Your task to perform on an android device: open app "Yahoo Mail" (install if not already installed) and enter user name: "lawsuit@inbox.com" and password: "pooch" Image 0: 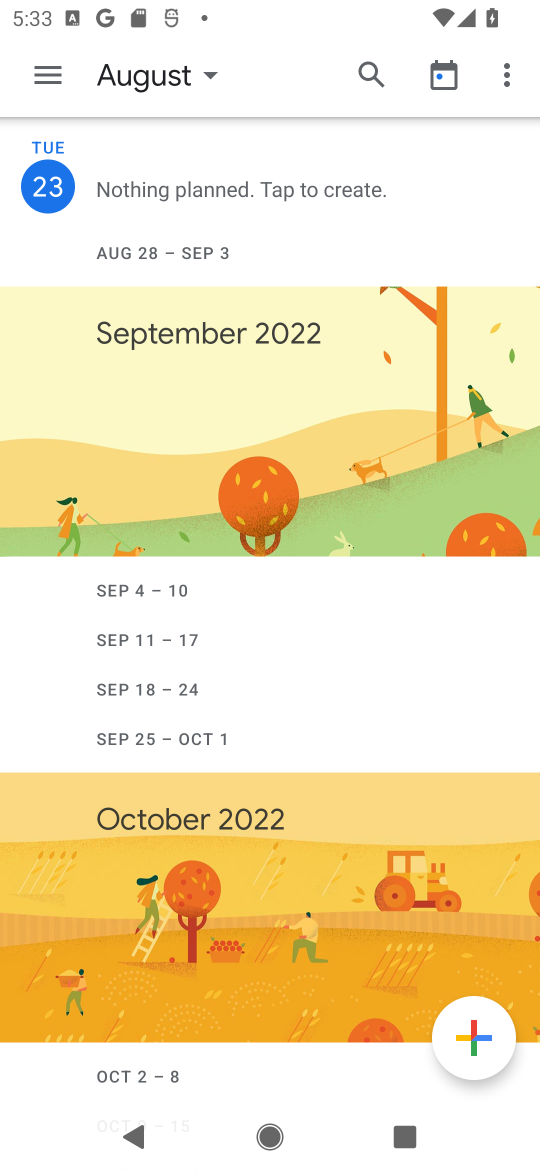
Step 0: press home button
Your task to perform on an android device: open app "Yahoo Mail" (install if not already installed) and enter user name: "lawsuit@inbox.com" and password: "pooch" Image 1: 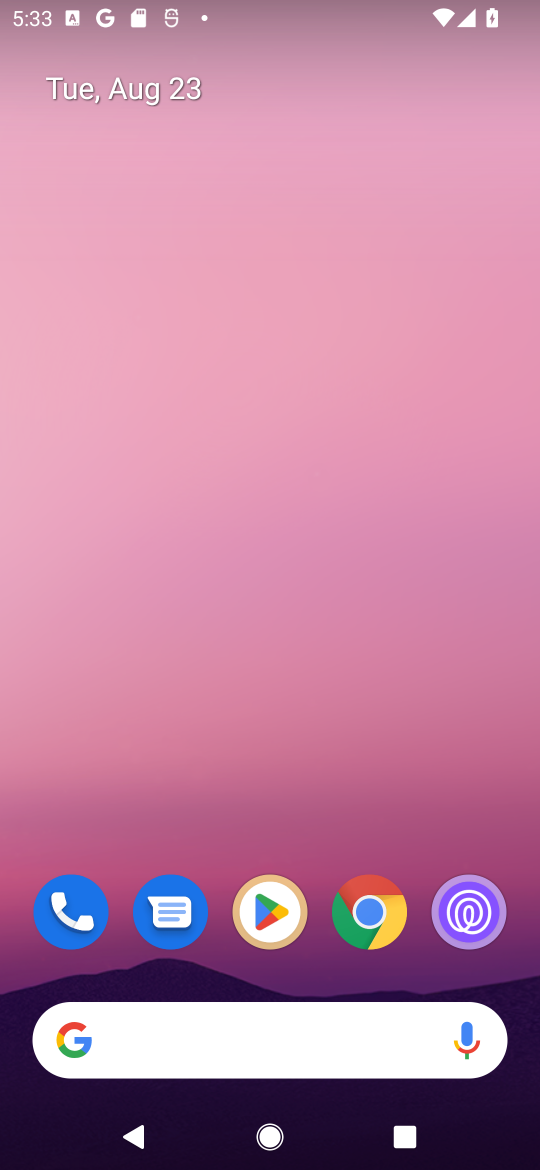
Step 1: click (283, 911)
Your task to perform on an android device: open app "Yahoo Mail" (install if not already installed) and enter user name: "lawsuit@inbox.com" and password: "pooch" Image 2: 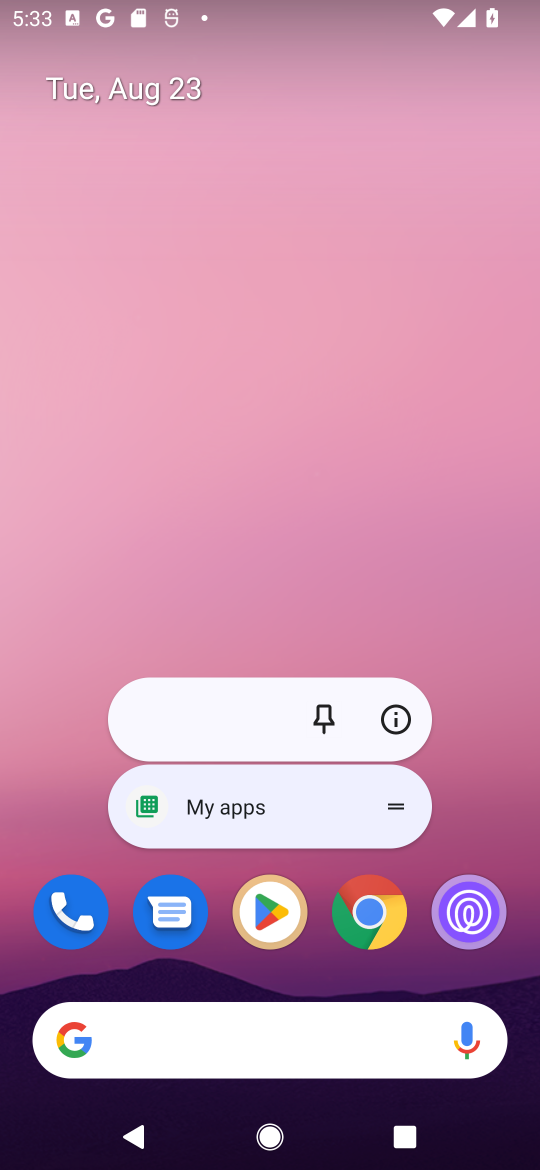
Step 2: click (283, 911)
Your task to perform on an android device: open app "Yahoo Mail" (install if not already installed) and enter user name: "lawsuit@inbox.com" and password: "pooch" Image 3: 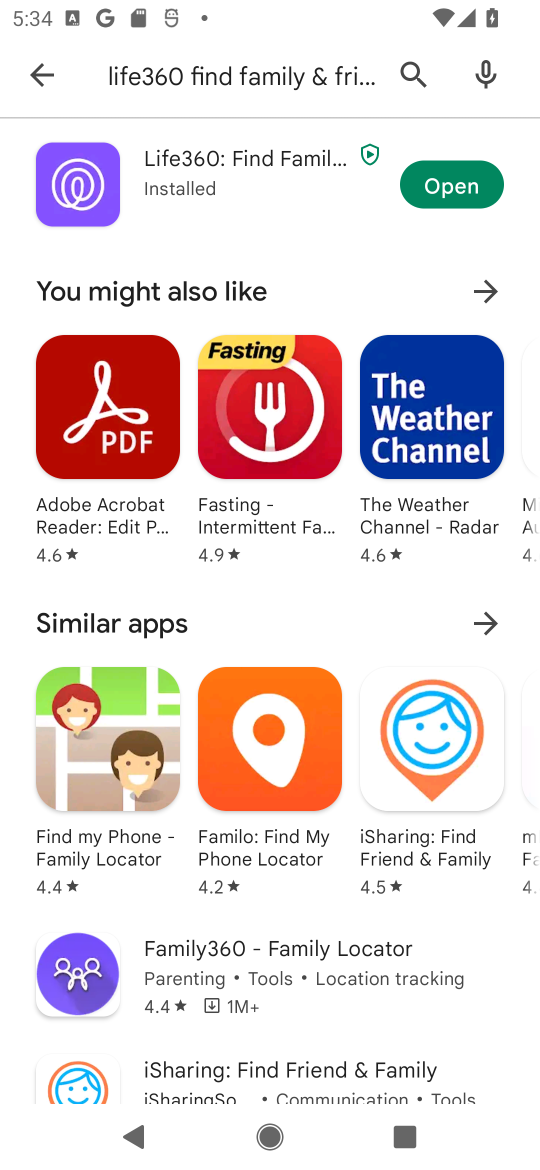
Step 3: click (48, 78)
Your task to perform on an android device: open app "Yahoo Mail" (install if not already installed) and enter user name: "lawsuit@inbox.com" and password: "pooch" Image 4: 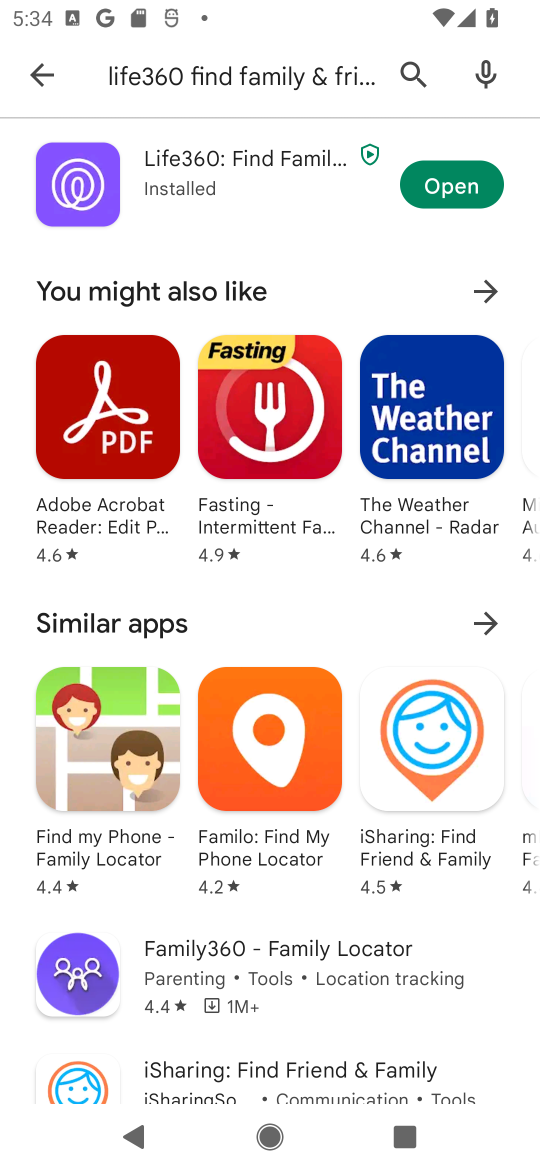
Step 4: click (48, 78)
Your task to perform on an android device: open app "Yahoo Mail" (install if not already installed) and enter user name: "lawsuit@inbox.com" and password: "pooch" Image 5: 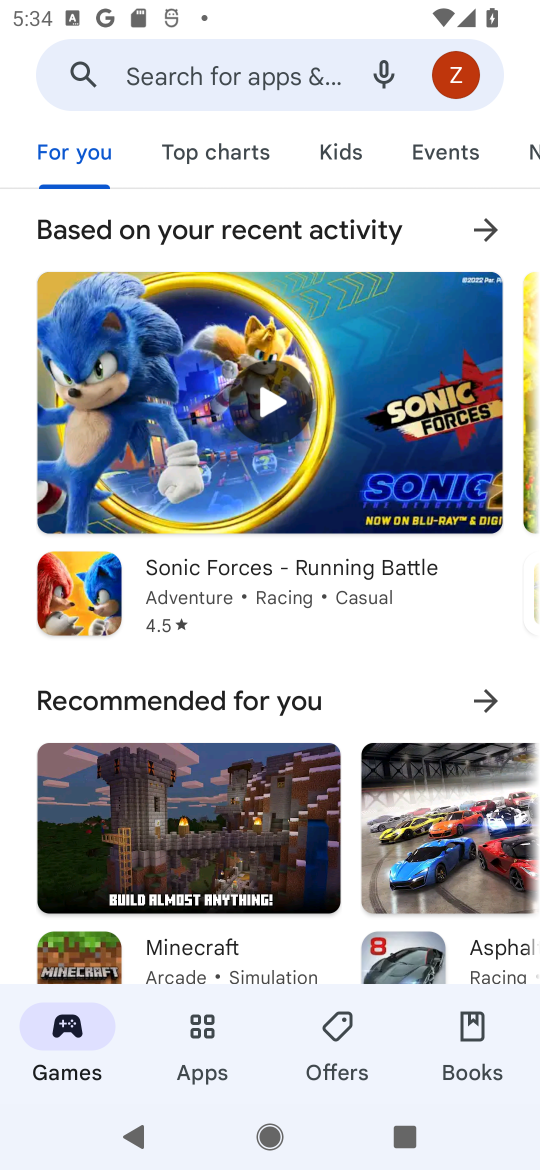
Step 5: click (237, 64)
Your task to perform on an android device: open app "Yahoo Mail" (install if not already installed) and enter user name: "lawsuit@inbox.com" and password: "pooch" Image 6: 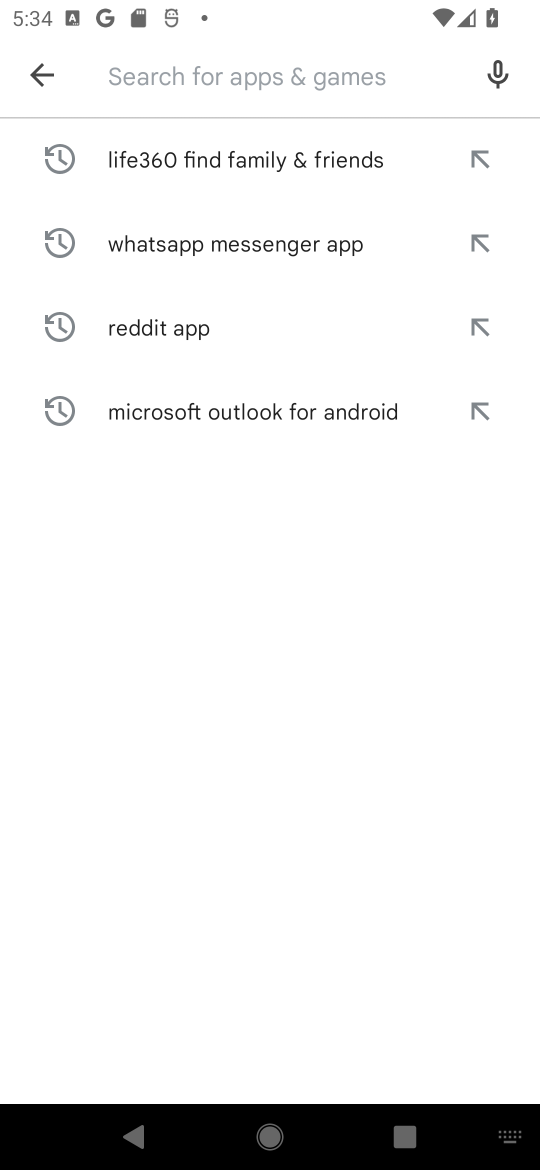
Step 6: click (202, 66)
Your task to perform on an android device: open app "Yahoo Mail" (install if not already installed) and enter user name: "lawsuit@inbox.com" and password: "pooch" Image 7: 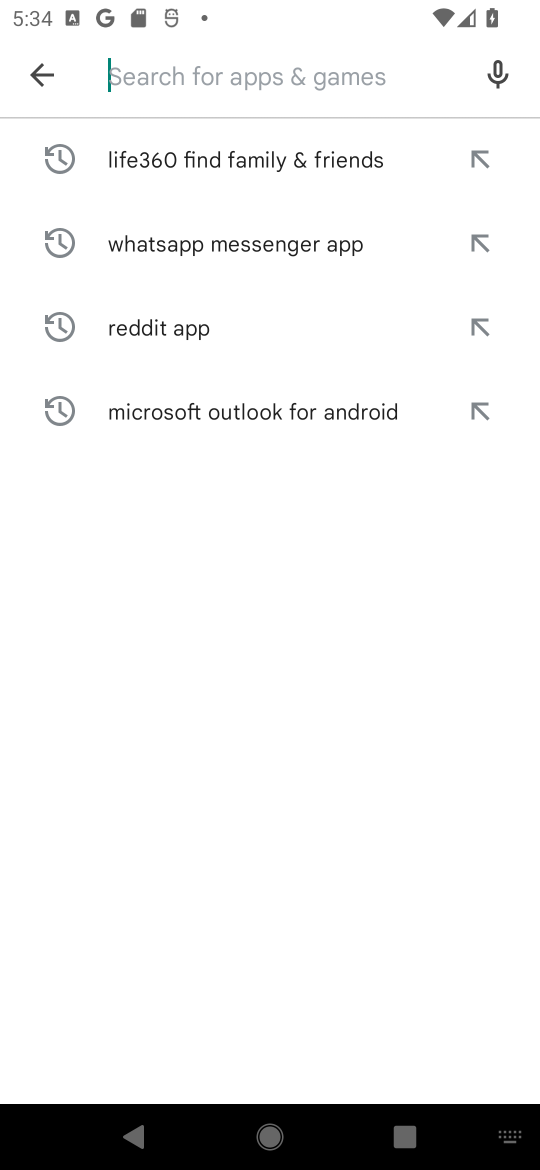
Step 7: type "Yahoo Mail "
Your task to perform on an android device: open app "Yahoo Mail" (install if not already installed) and enter user name: "lawsuit@inbox.com" and password: "pooch" Image 8: 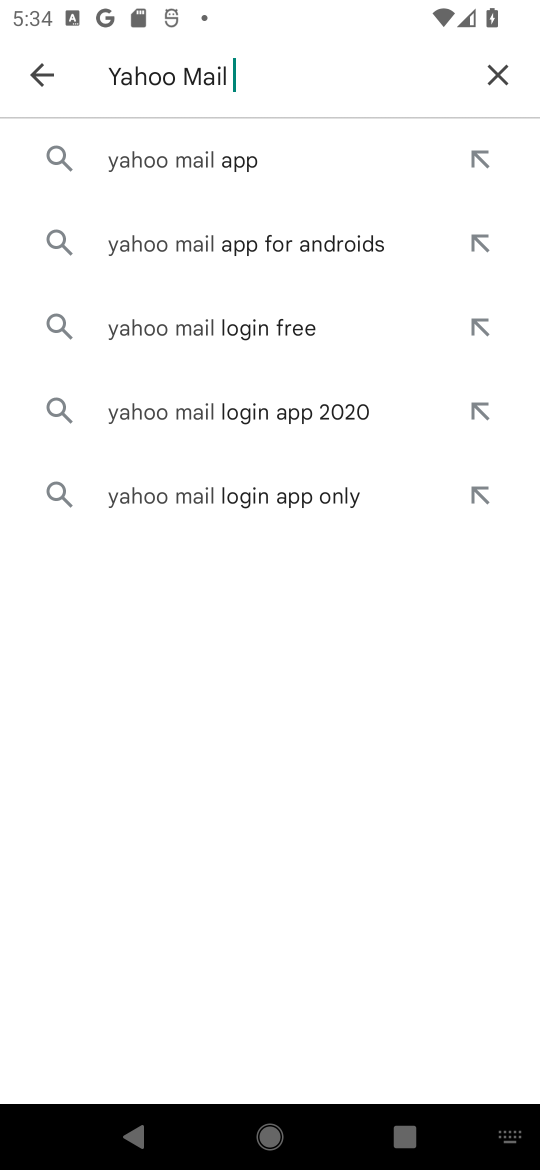
Step 8: click (252, 149)
Your task to perform on an android device: open app "Yahoo Mail" (install if not already installed) and enter user name: "lawsuit@inbox.com" and password: "pooch" Image 9: 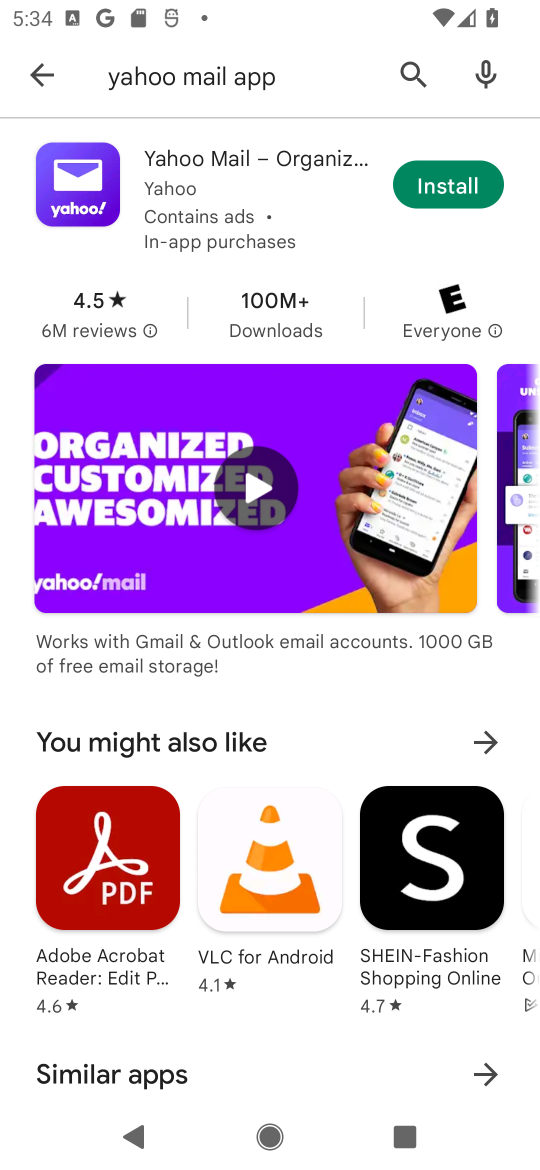
Step 9: click (457, 176)
Your task to perform on an android device: open app "Yahoo Mail" (install if not already installed) and enter user name: "lawsuit@inbox.com" and password: "pooch" Image 10: 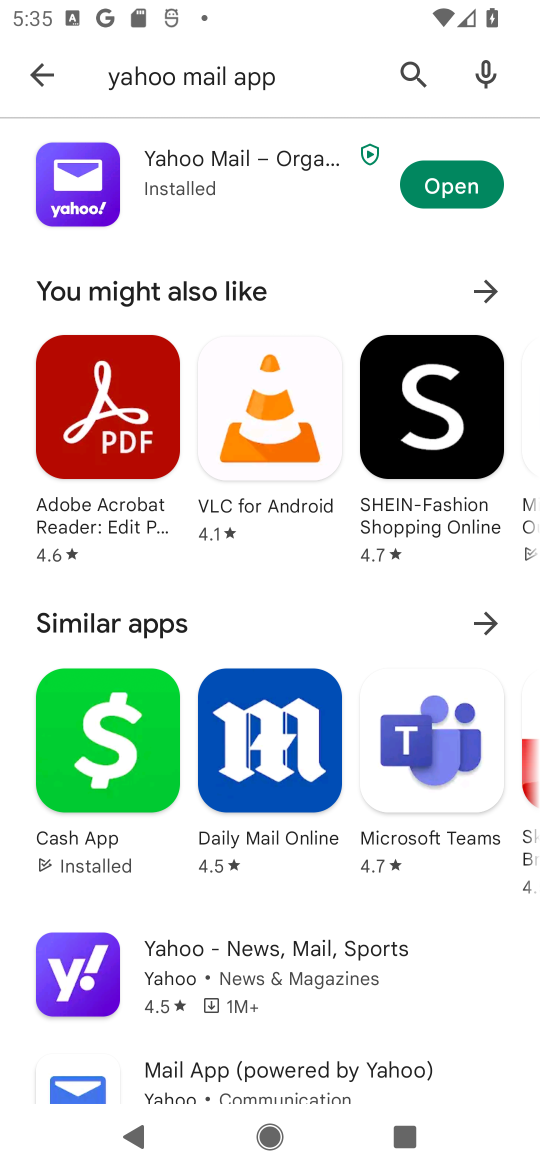
Step 10: click (457, 176)
Your task to perform on an android device: open app "Yahoo Mail" (install if not already installed) and enter user name: "lawsuit@inbox.com" and password: "pooch" Image 11: 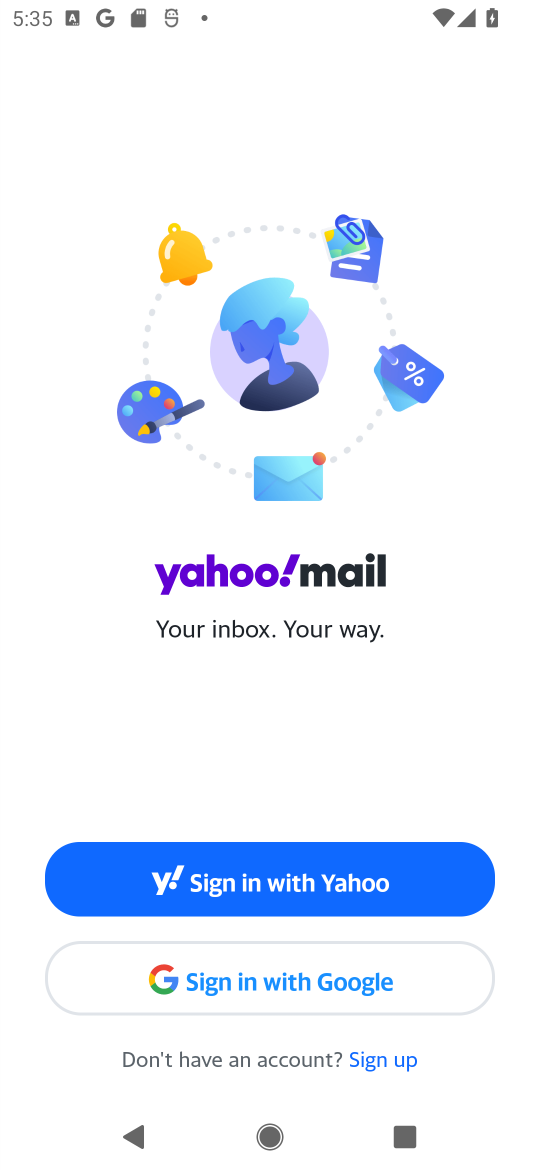
Step 11: task complete